Your task to perform on an android device: turn on sleep mode Image 0: 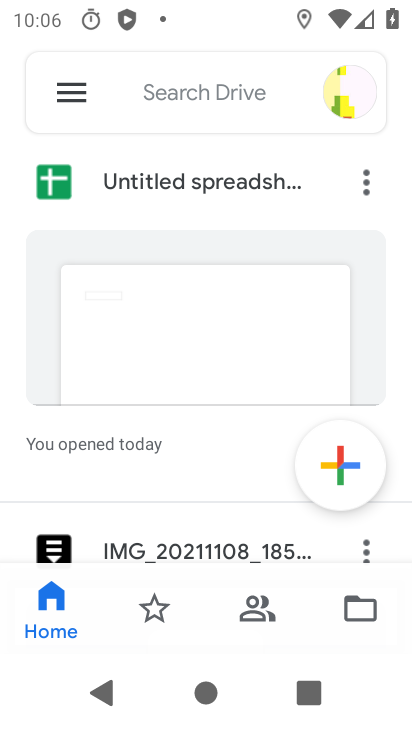
Step 0: press home button
Your task to perform on an android device: turn on sleep mode Image 1: 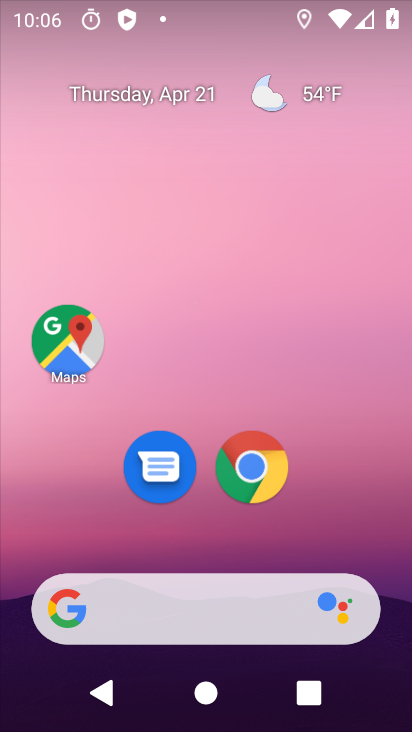
Step 1: drag from (376, 478) to (365, 153)
Your task to perform on an android device: turn on sleep mode Image 2: 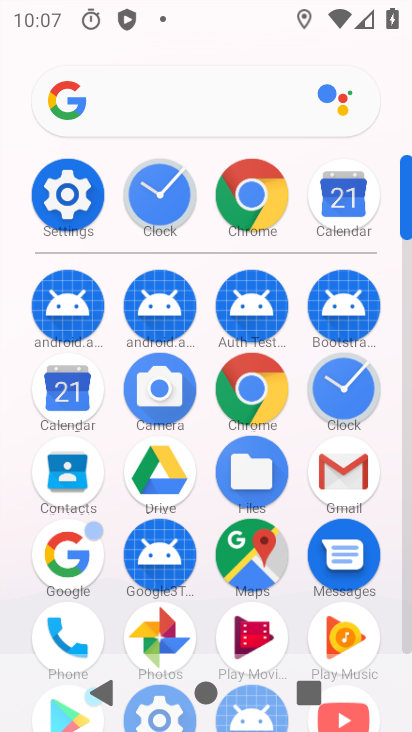
Step 2: click (58, 198)
Your task to perform on an android device: turn on sleep mode Image 3: 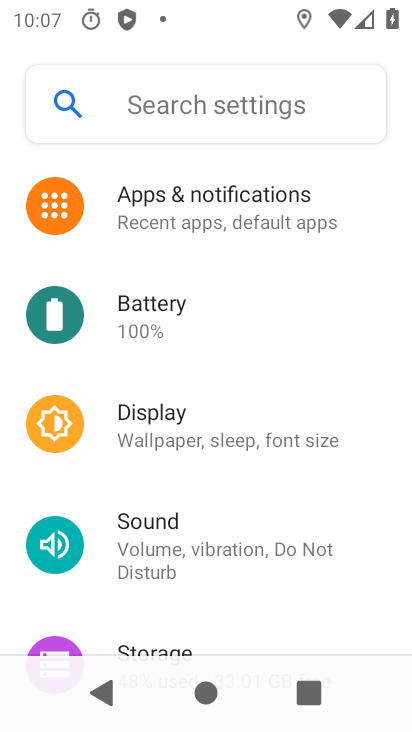
Step 3: click (166, 115)
Your task to perform on an android device: turn on sleep mode Image 4: 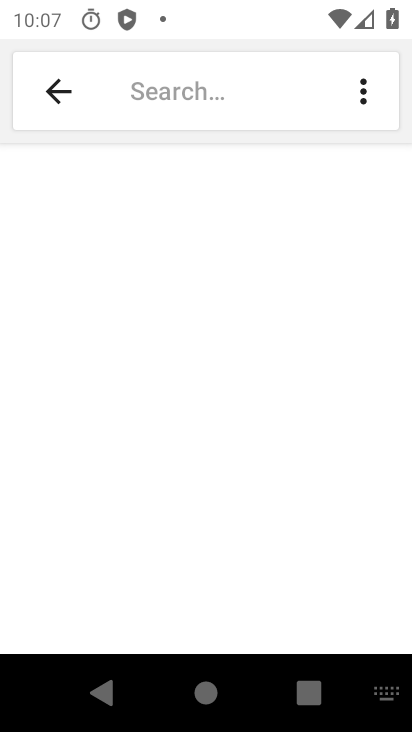
Step 4: type "sleep mode"
Your task to perform on an android device: turn on sleep mode Image 5: 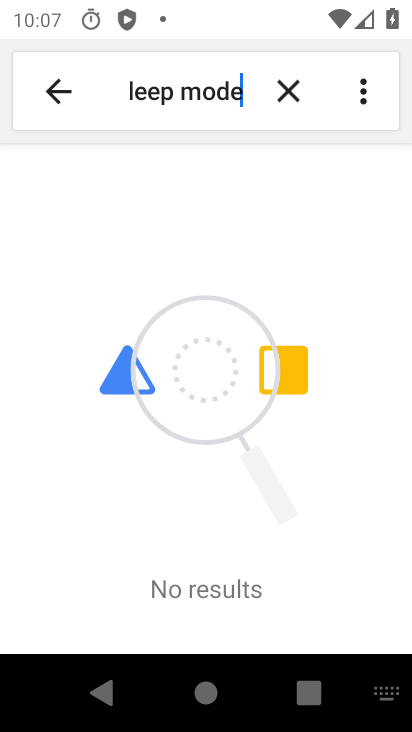
Step 5: task complete